Your task to perform on an android device: toggle sleep mode Image 0: 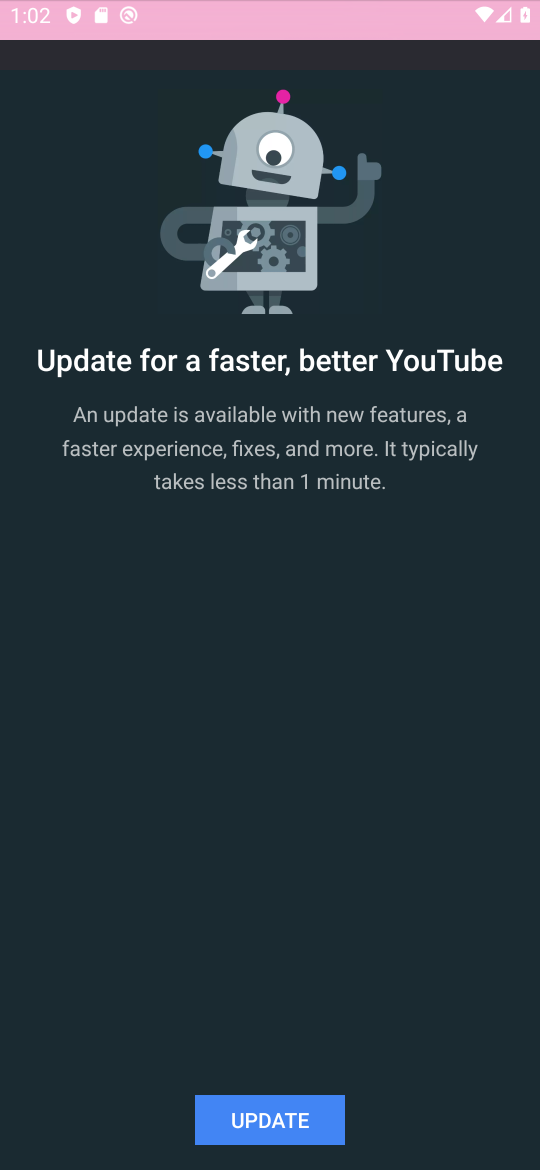
Step 0: click (297, 127)
Your task to perform on an android device: toggle sleep mode Image 1: 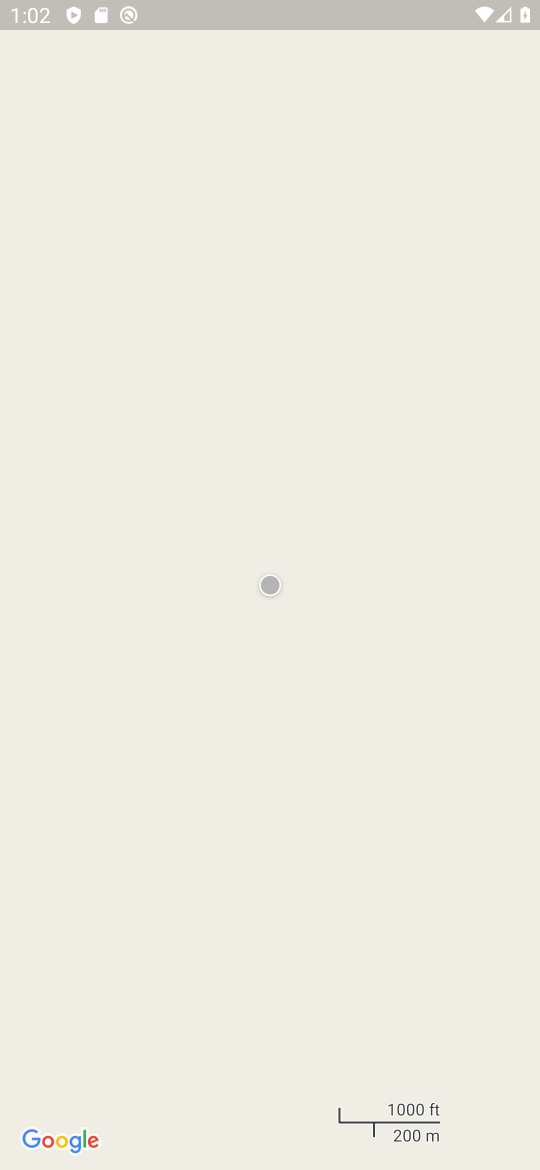
Step 1: press home button
Your task to perform on an android device: toggle sleep mode Image 2: 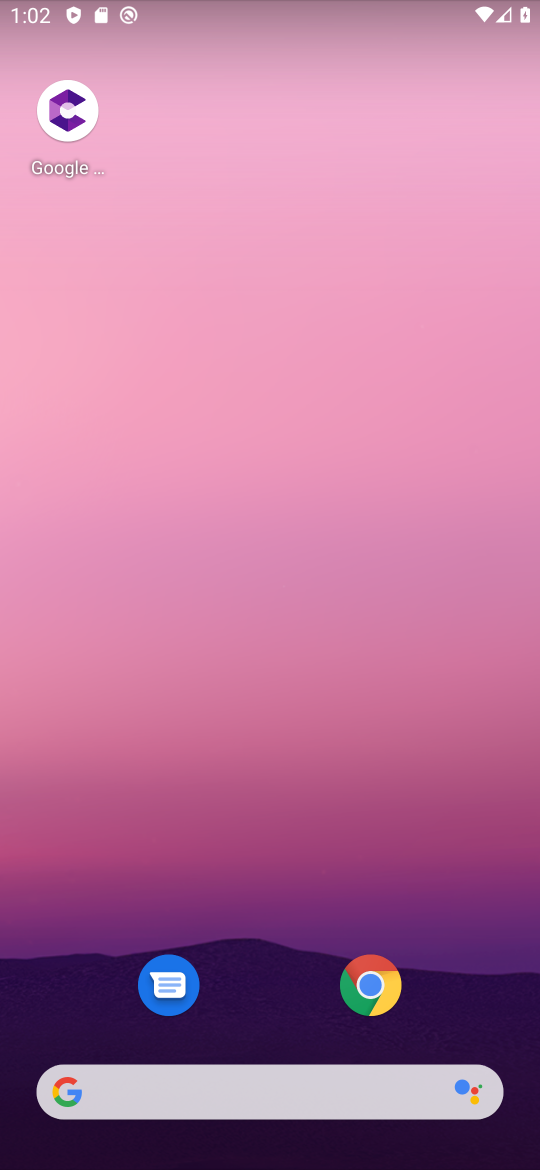
Step 2: drag from (280, 1025) to (291, 100)
Your task to perform on an android device: toggle sleep mode Image 3: 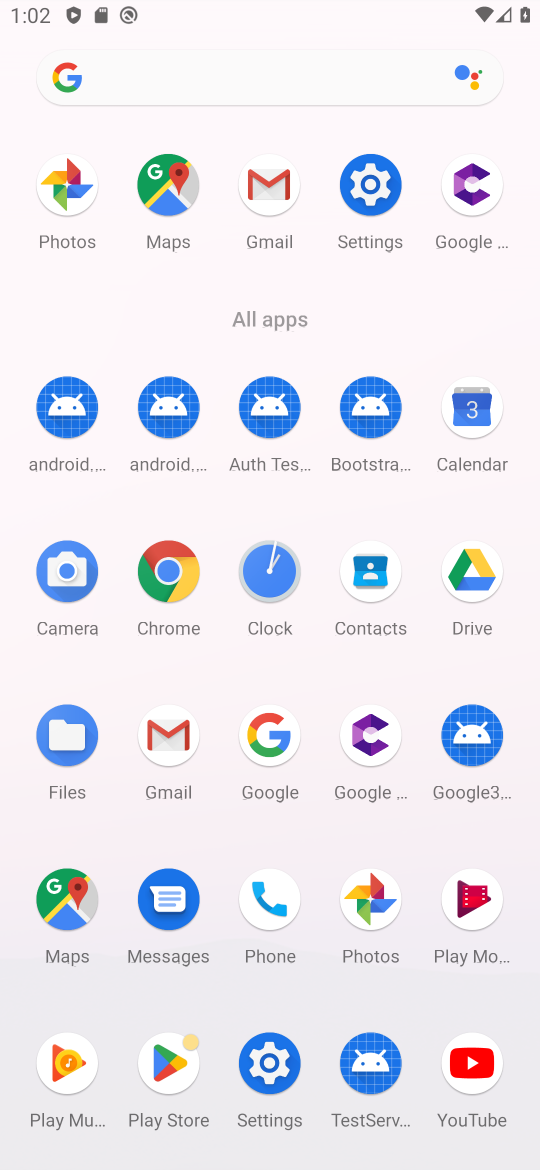
Step 3: click (360, 177)
Your task to perform on an android device: toggle sleep mode Image 4: 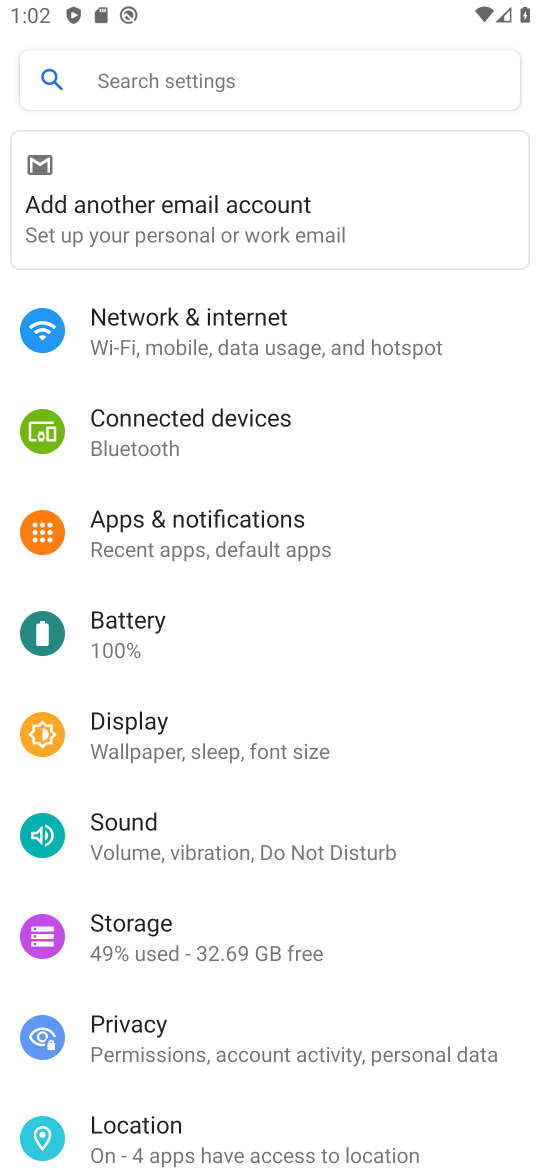
Step 4: click (185, 719)
Your task to perform on an android device: toggle sleep mode Image 5: 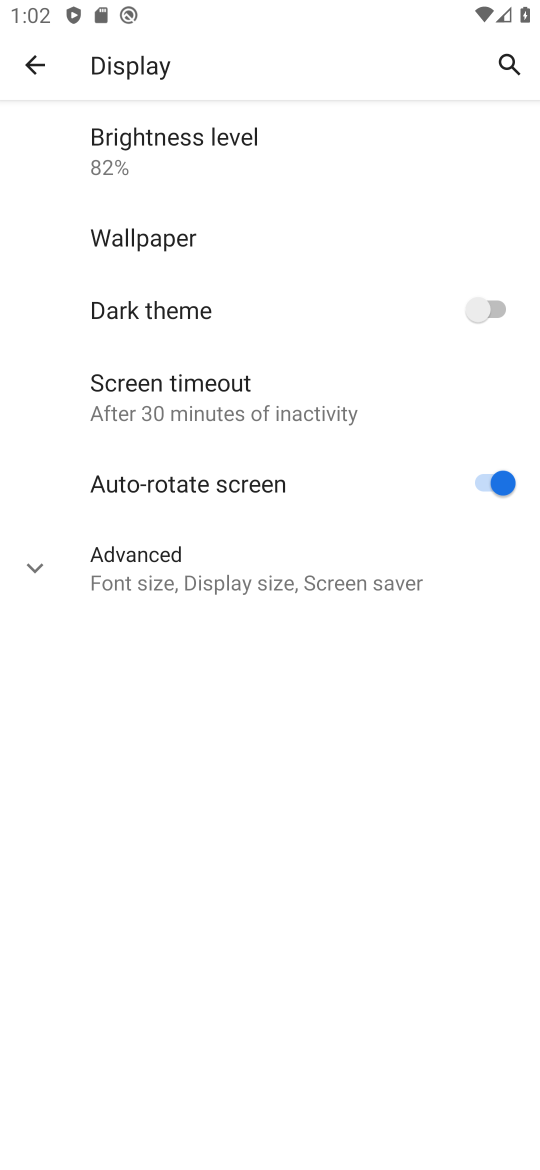
Step 5: click (40, 550)
Your task to perform on an android device: toggle sleep mode Image 6: 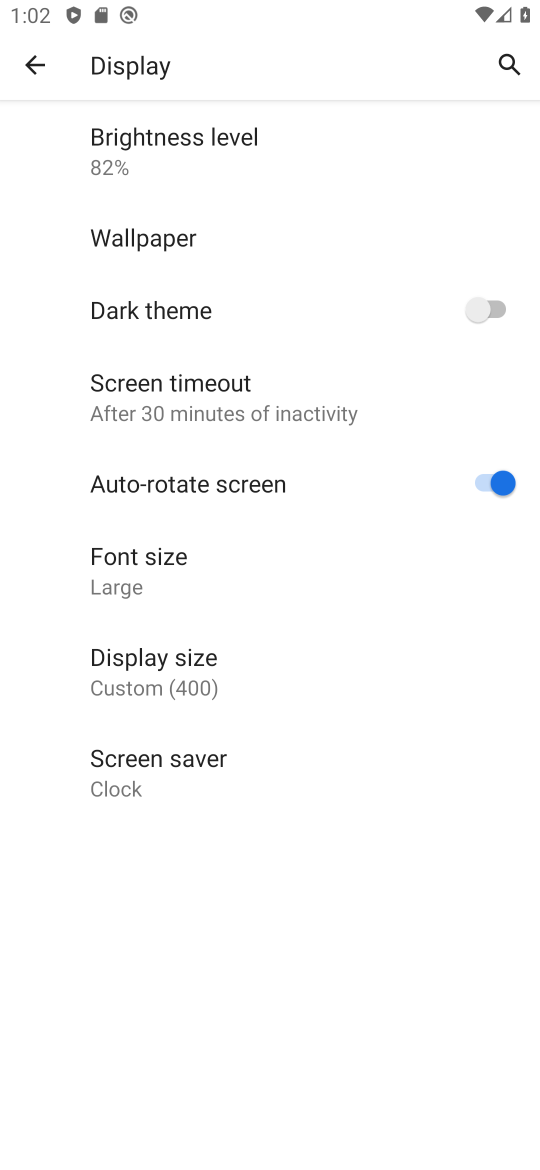
Step 6: task complete